Your task to perform on an android device: toggle location history Image 0: 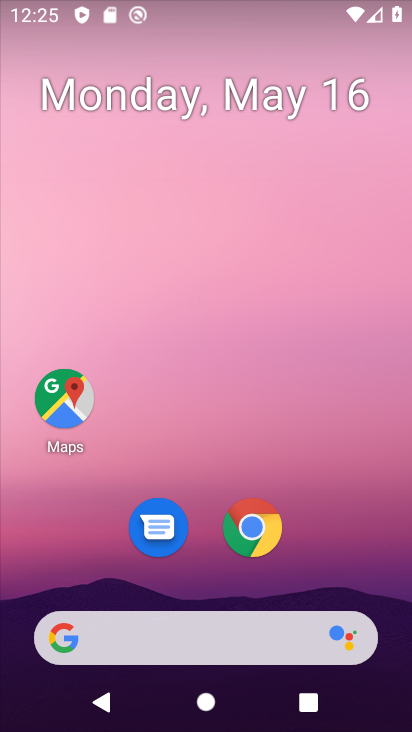
Step 0: drag from (138, 639) to (281, 152)
Your task to perform on an android device: toggle location history Image 1: 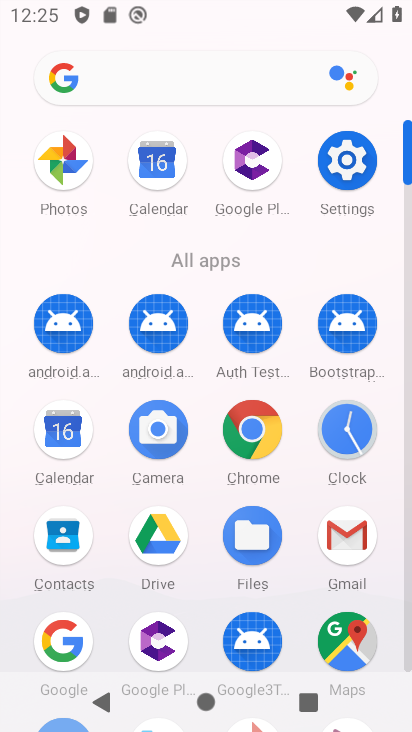
Step 1: click (345, 161)
Your task to perform on an android device: toggle location history Image 2: 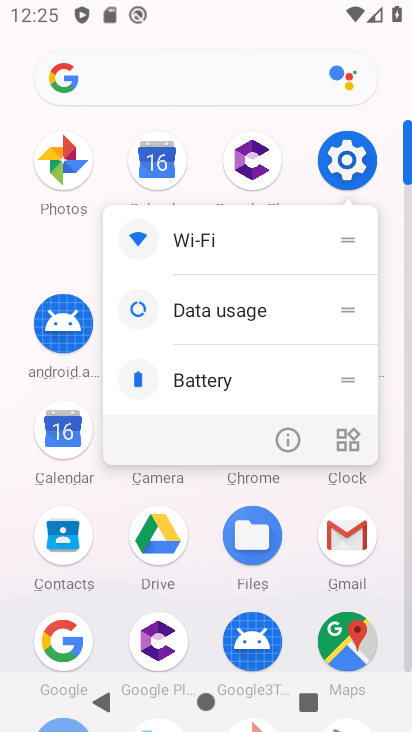
Step 2: click (345, 170)
Your task to perform on an android device: toggle location history Image 3: 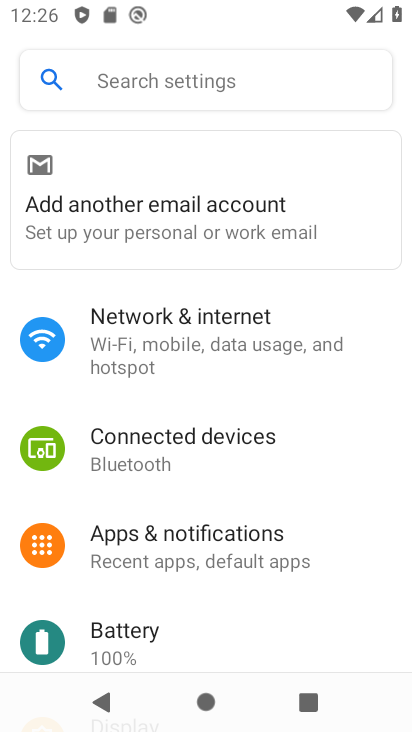
Step 3: drag from (226, 597) to (385, 87)
Your task to perform on an android device: toggle location history Image 4: 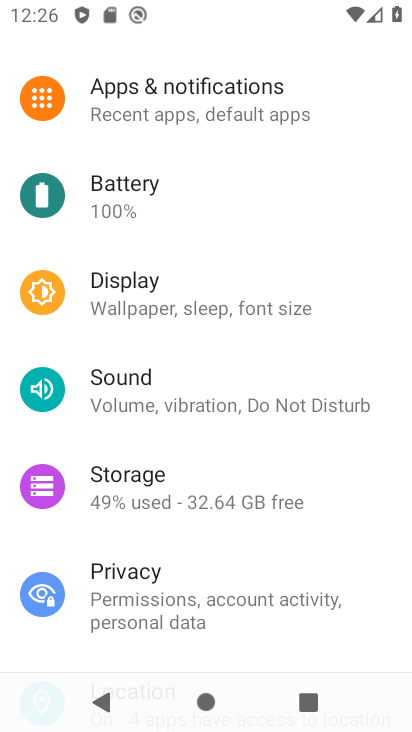
Step 4: drag from (191, 583) to (326, 137)
Your task to perform on an android device: toggle location history Image 5: 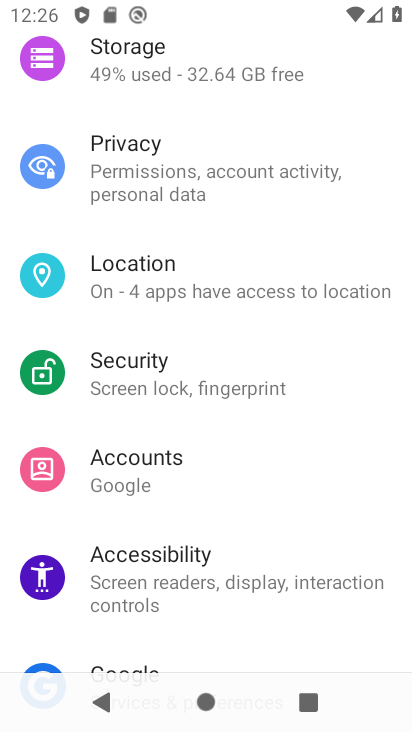
Step 5: click (160, 292)
Your task to perform on an android device: toggle location history Image 6: 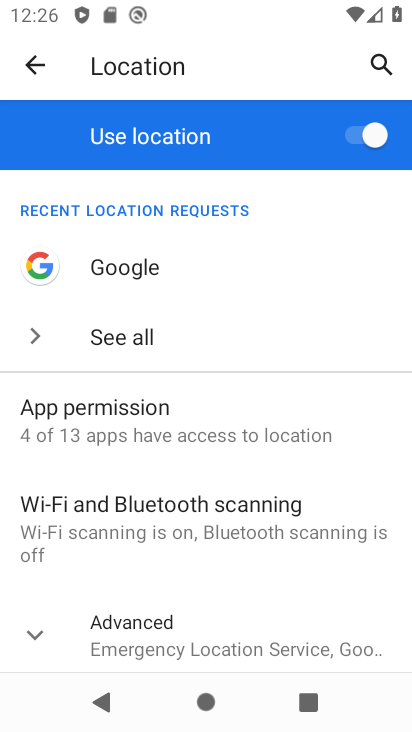
Step 6: drag from (206, 580) to (300, 175)
Your task to perform on an android device: toggle location history Image 7: 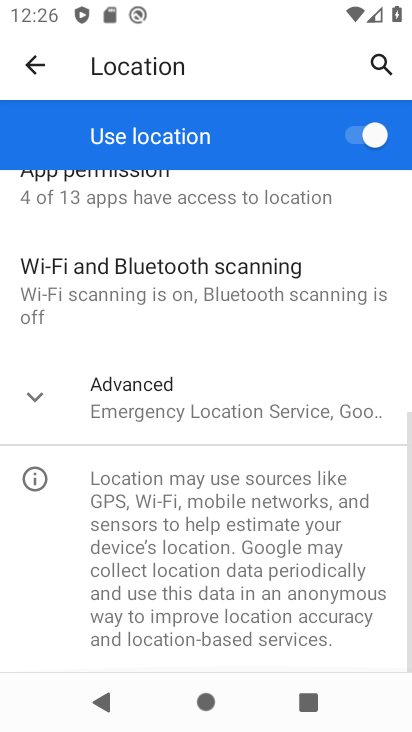
Step 7: click (189, 395)
Your task to perform on an android device: toggle location history Image 8: 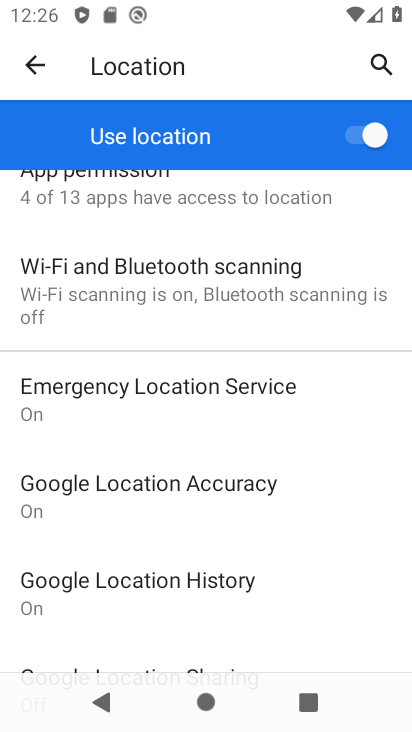
Step 8: click (169, 580)
Your task to perform on an android device: toggle location history Image 9: 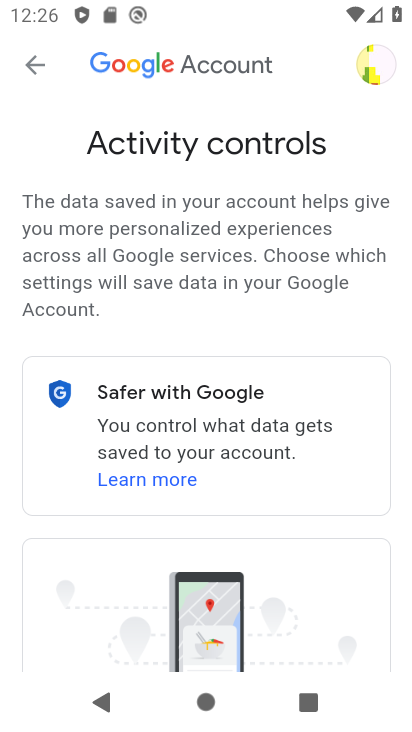
Step 9: drag from (134, 605) to (295, 144)
Your task to perform on an android device: toggle location history Image 10: 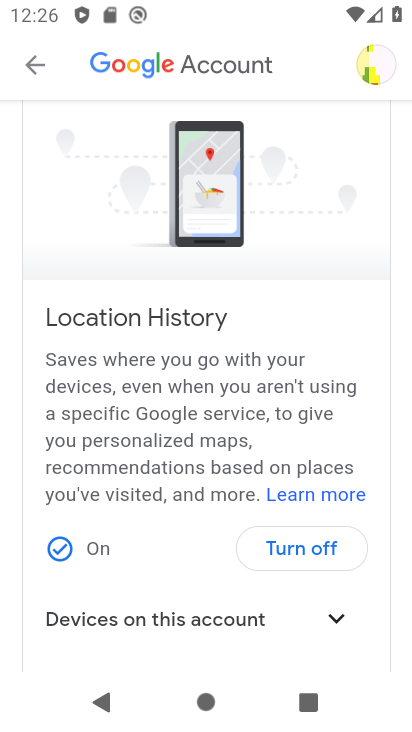
Step 10: click (308, 557)
Your task to perform on an android device: toggle location history Image 11: 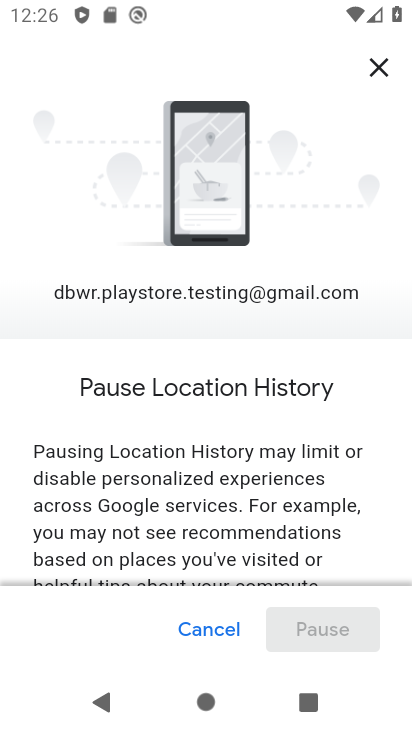
Step 11: drag from (206, 535) to (370, 52)
Your task to perform on an android device: toggle location history Image 12: 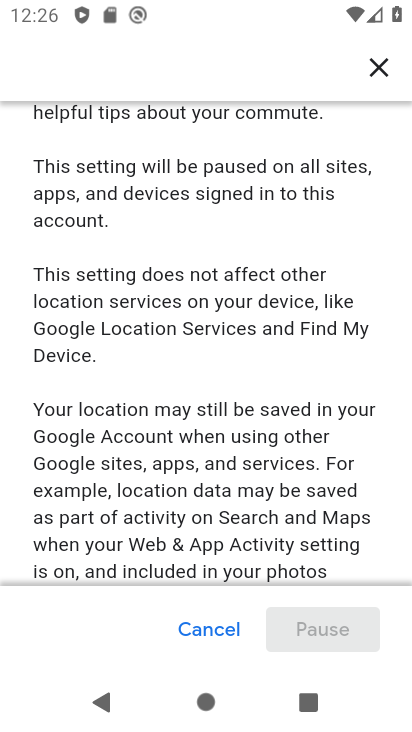
Step 12: drag from (235, 478) to (384, 30)
Your task to perform on an android device: toggle location history Image 13: 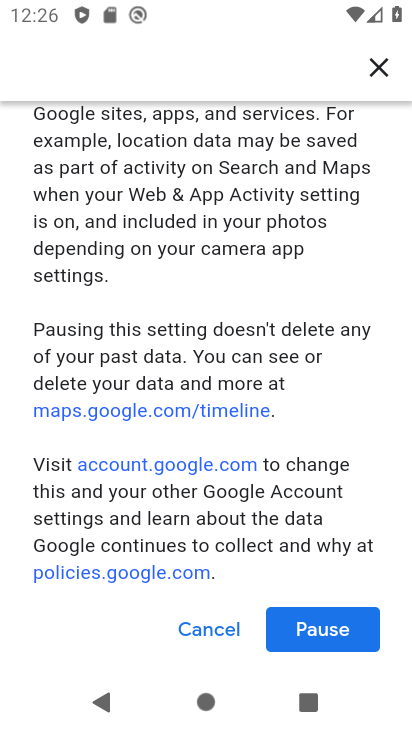
Step 13: click (316, 627)
Your task to perform on an android device: toggle location history Image 14: 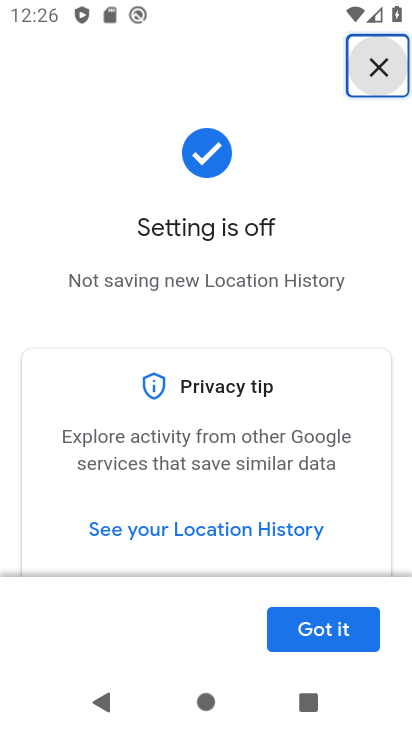
Step 14: click (336, 634)
Your task to perform on an android device: toggle location history Image 15: 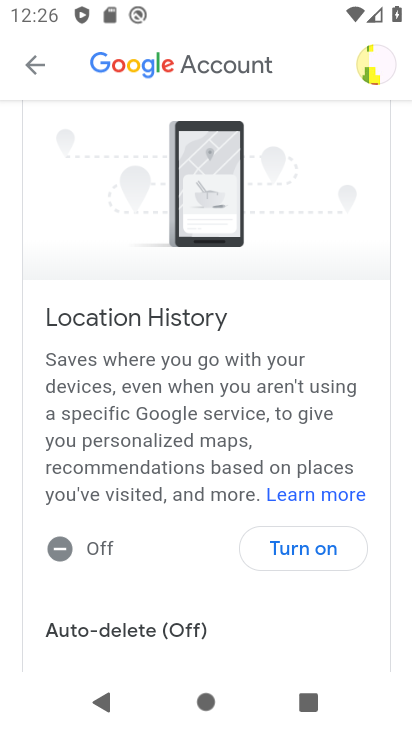
Step 15: task complete